Your task to perform on an android device: Go to Google Image 0: 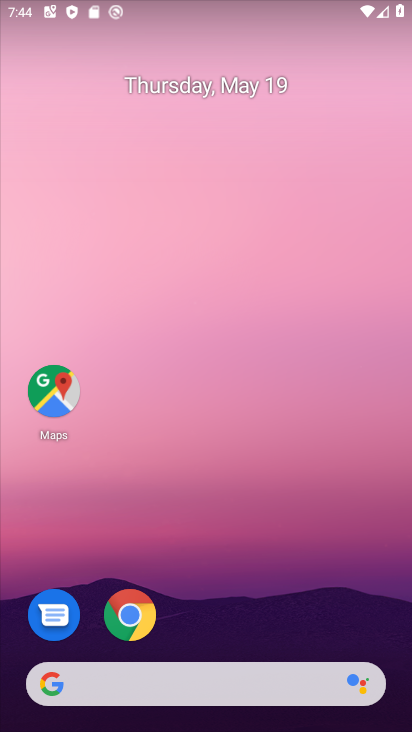
Step 0: drag from (223, 652) to (219, 39)
Your task to perform on an android device: Go to Google Image 1: 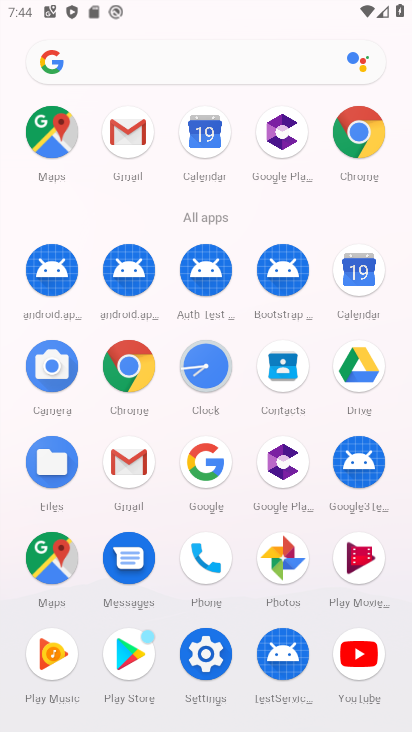
Step 1: click (210, 480)
Your task to perform on an android device: Go to Google Image 2: 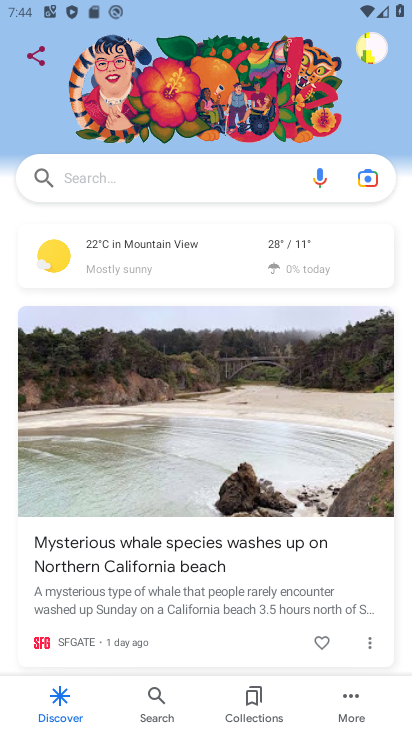
Step 2: task complete